Your task to perform on an android device: turn notification dots off Image 0: 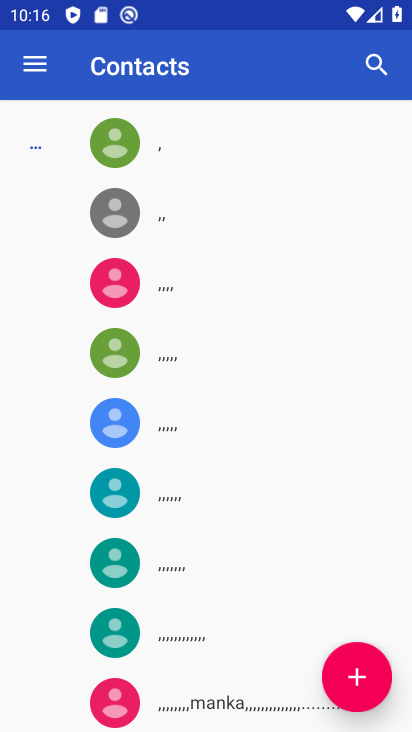
Step 0: press back button
Your task to perform on an android device: turn notification dots off Image 1: 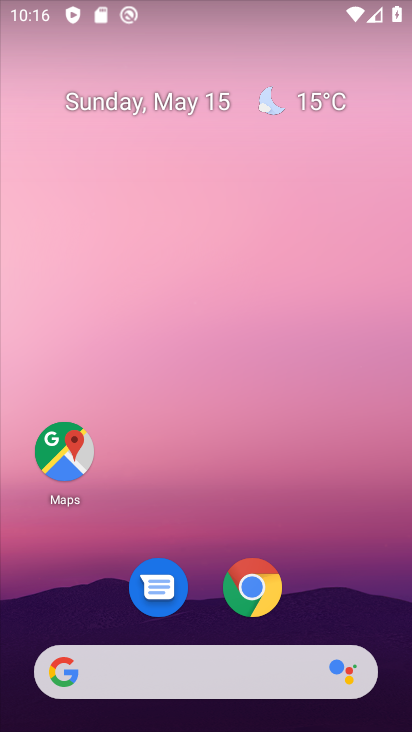
Step 1: drag from (63, 640) to (151, 203)
Your task to perform on an android device: turn notification dots off Image 2: 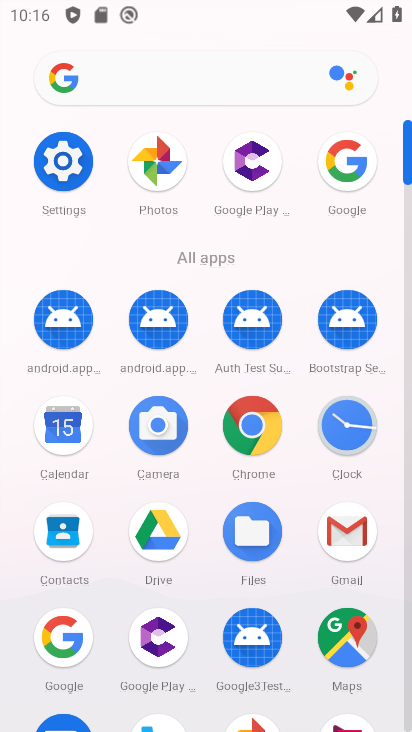
Step 2: drag from (173, 644) to (218, 448)
Your task to perform on an android device: turn notification dots off Image 3: 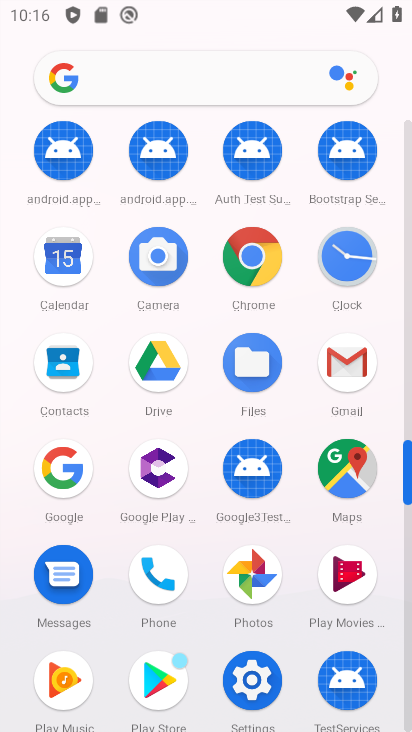
Step 3: click (267, 693)
Your task to perform on an android device: turn notification dots off Image 4: 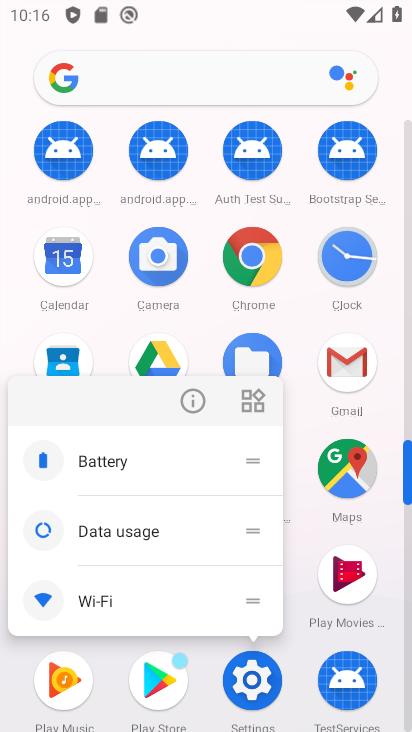
Step 4: click (262, 681)
Your task to perform on an android device: turn notification dots off Image 5: 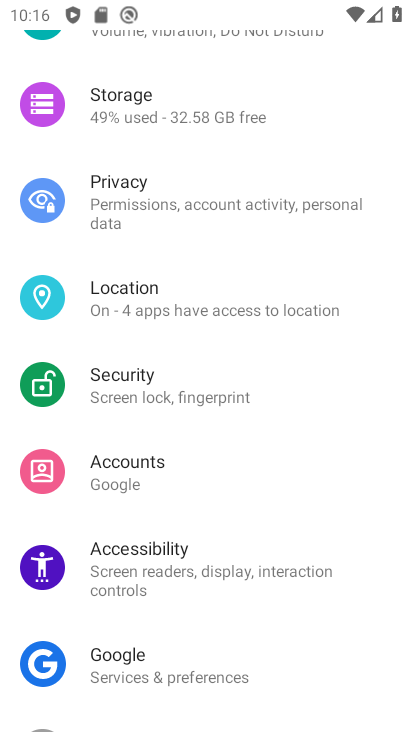
Step 5: drag from (194, 214) to (194, 589)
Your task to perform on an android device: turn notification dots off Image 6: 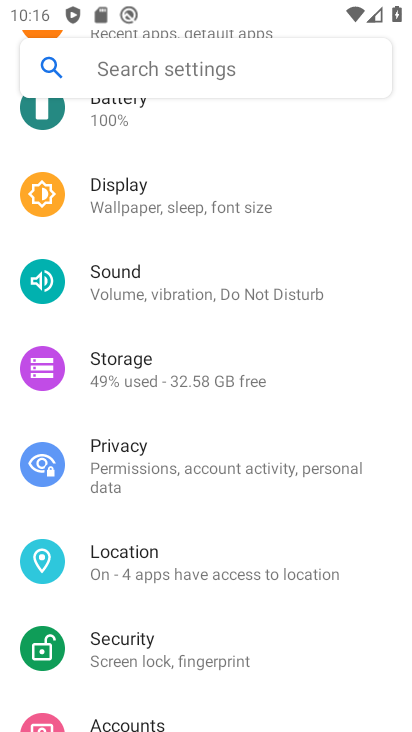
Step 6: drag from (198, 251) to (204, 548)
Your task to perform on an android device: turn notification dots off Image 7: 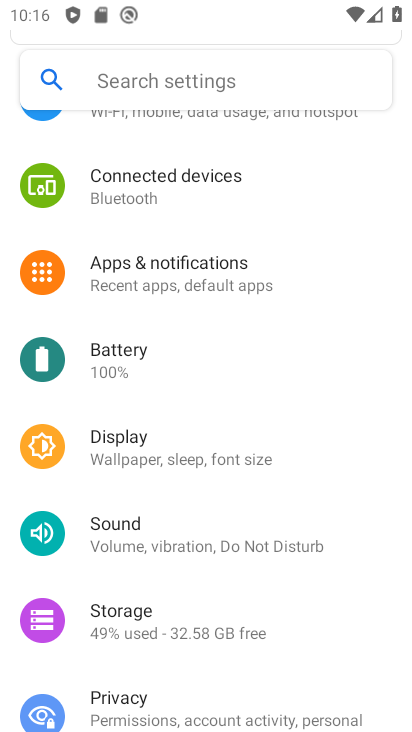
Step 7: click (198, 282)
Your task to perform on an android device: turn notification dots off Image 8: 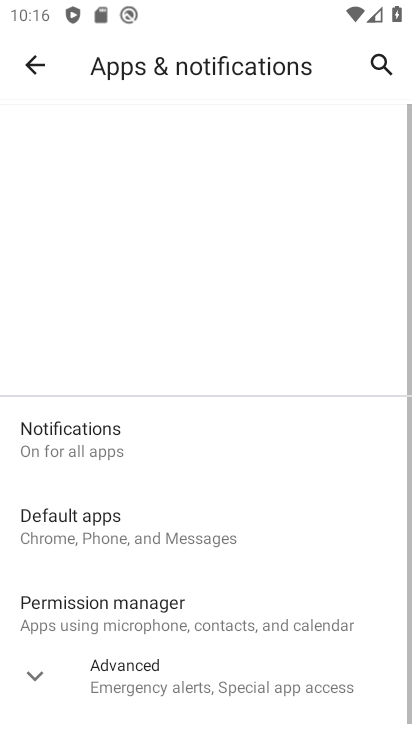
Step 8: drag from (211, 583) to (285, 274)
Your task to perform on an android device: turn notification dots off Image 9: 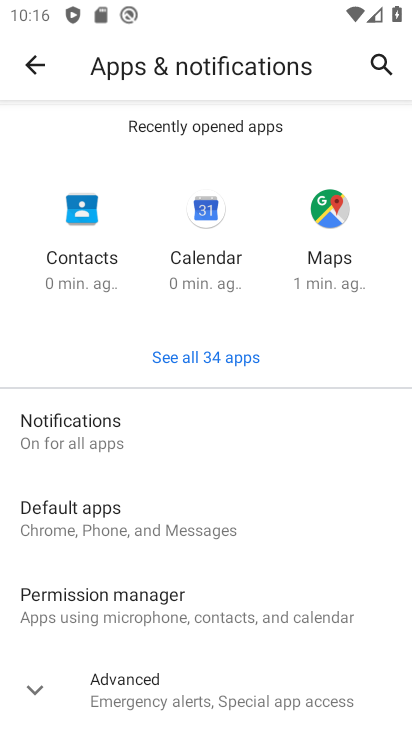
Step 9: drag from (235, 664) to (271, 459)
Your task to perform on an android device: turn notification dots off Image 10: 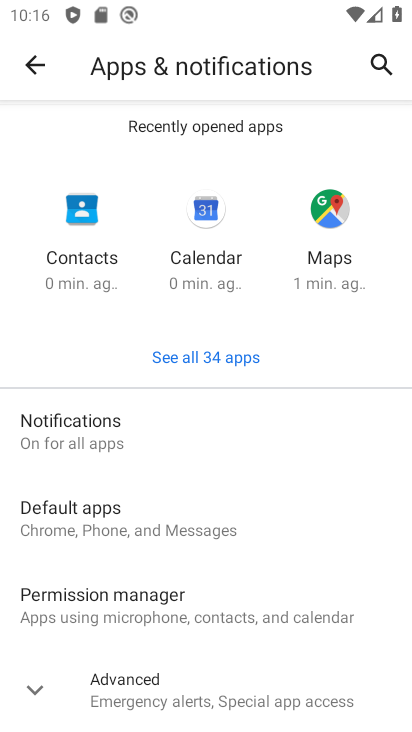
Step 10: click (180, 436)
Your task to perform on an android device: turn notification dots off Image 11: 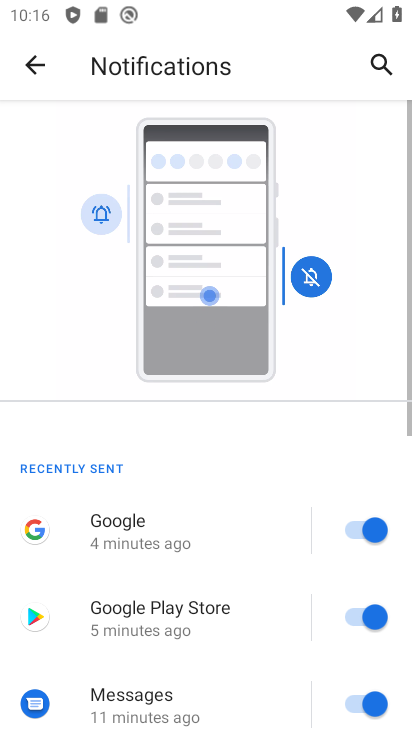
Step 11: drag from (187, 633) to (294, 197)
Your task to perform on an android device: turn notification dots off Image 12: 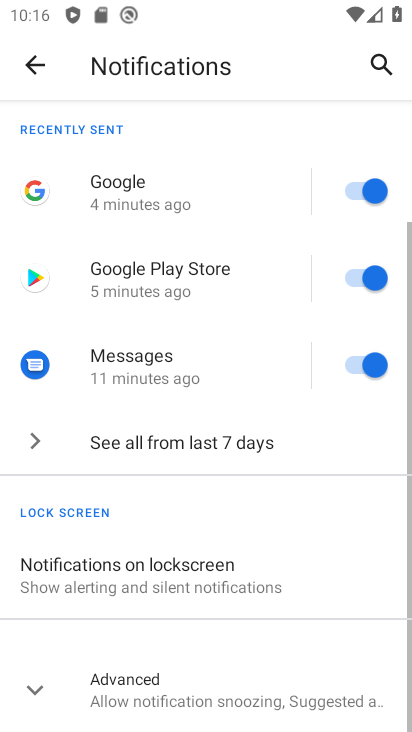
Step 12: drag from (228, 650) to (256, 404)
Your task to perform on an android device: turn notification dots off Image 13: 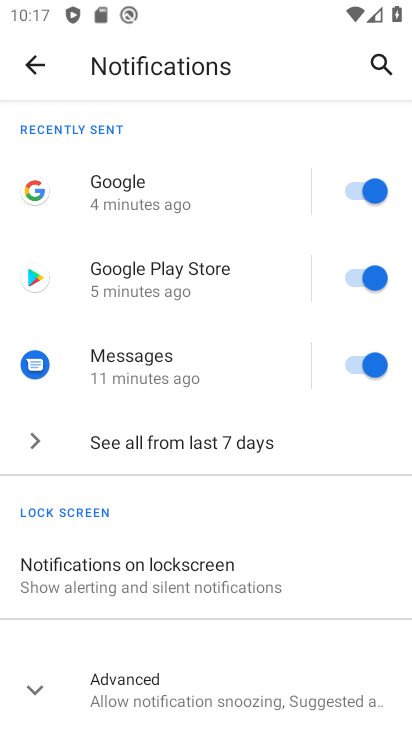
Step 13: click (164, 697)
Your task to perform on an android device: turn notification dots off Image 14: 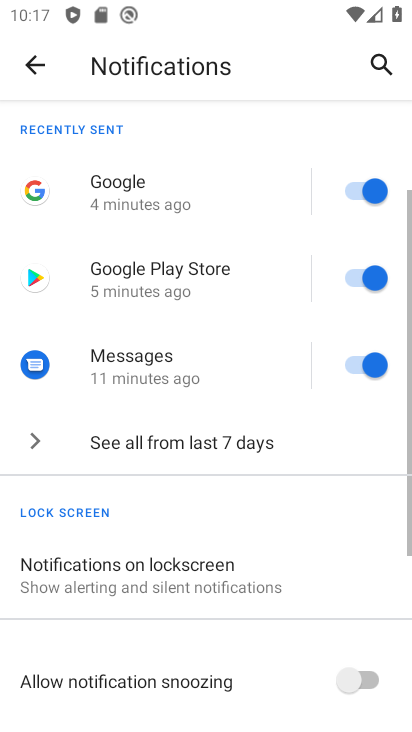
Step 14: drag from (164, 694) to (261, 259)
Your task to perform on an android device: turn notification dots off Image 15: 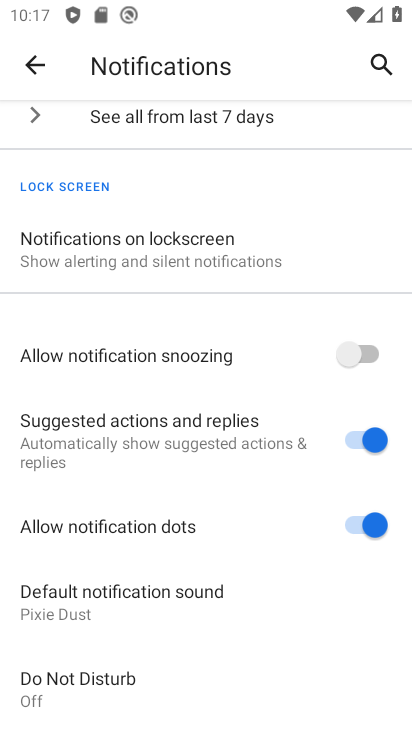
Step 15: click (366, 520)
Your task to perform on an android device: turn notification dots off Image 16: 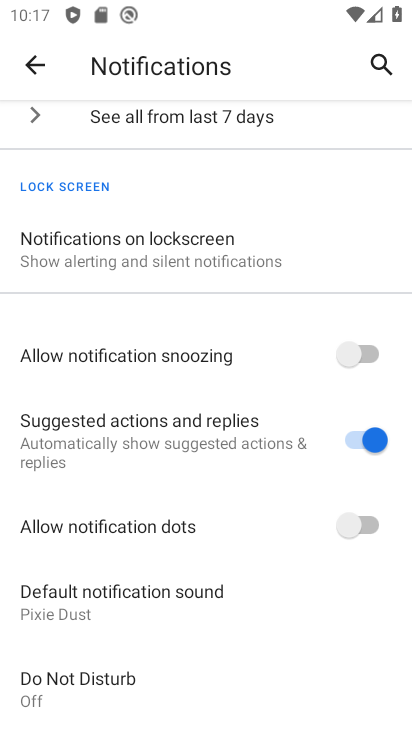
Step 16: task complete